Your task to perform on an android device: Do I have any events today? Image 0: 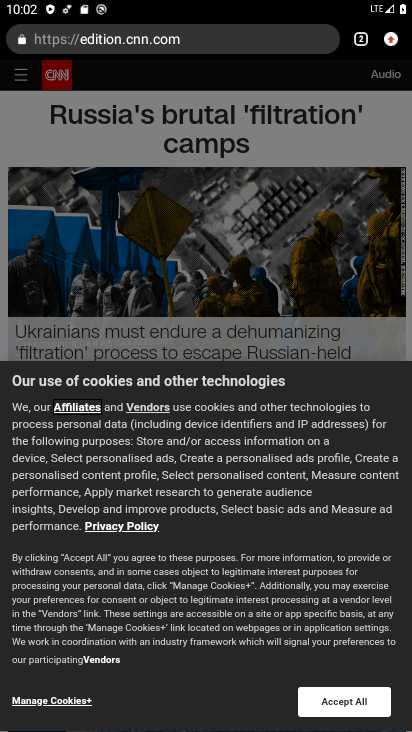
Step 0: click (210, 689)
Your task to perform on an android device: Do I have any events today? Image 1: 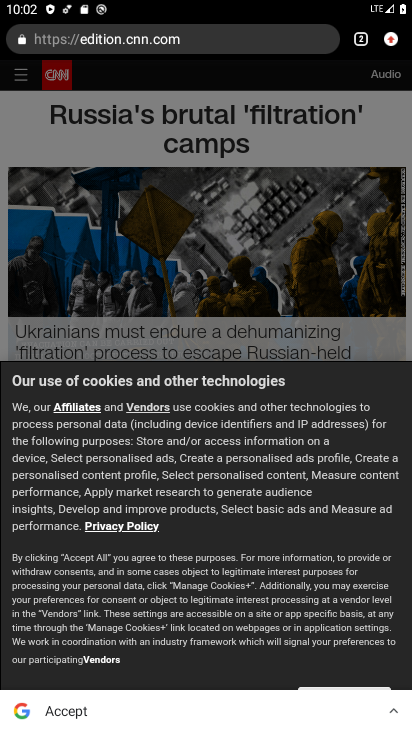
Step 1: press home button
Your task to perform on an android device: Do I have any events today? Image 2: 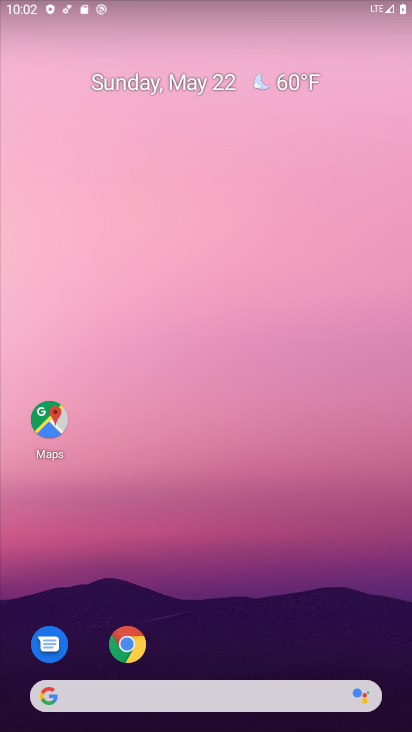
Step 2: drag from (170, 676) to (268, 169)
Your task to perform on an android device: Do I have any events today? Image 3: 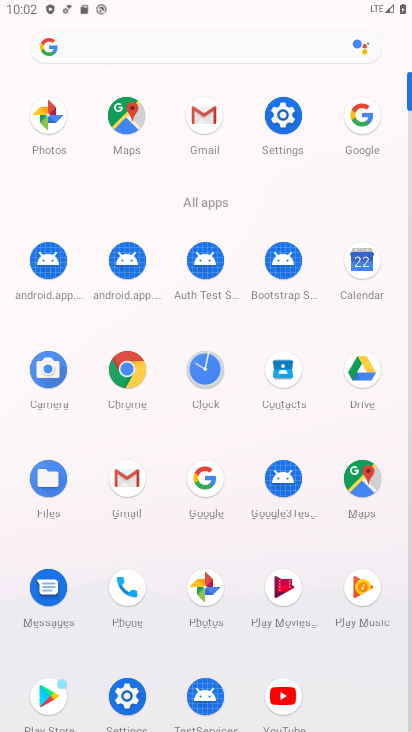
Step 3: click (360, 265)
Your task to perform on an android device: Do I have any events today? Image 4: 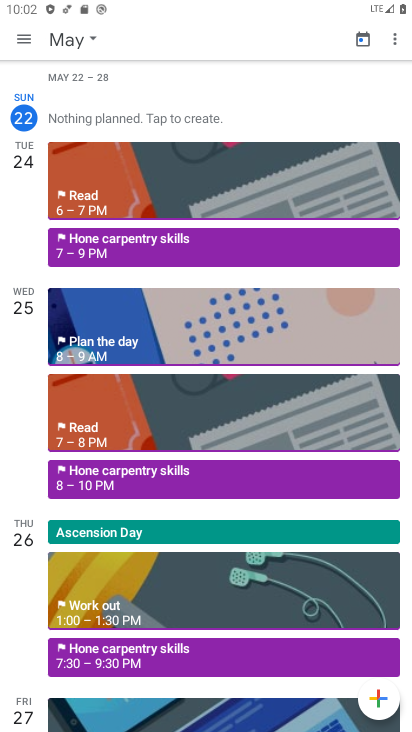
Step 4: click (80, 37)
Your task to perform on an android device: Do I have any events today? Image 5: 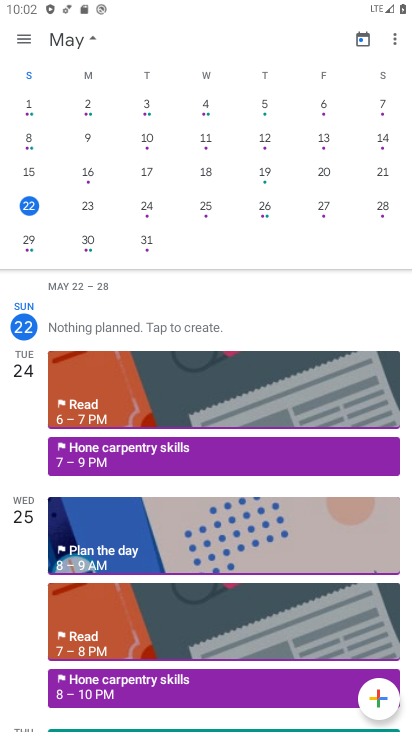
Step 5: click (28, 208)
Your task to perform on an android device: Do I have any events today? Image 6: 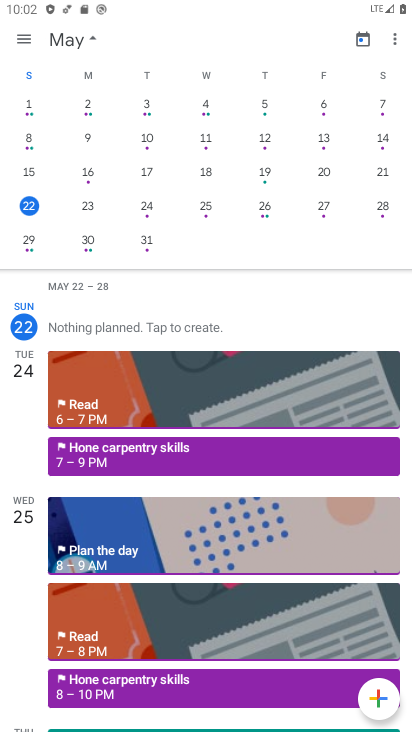
Step 6: click (59, 331)
Your task to perform on an android device: Do I have any events today? Image 7: 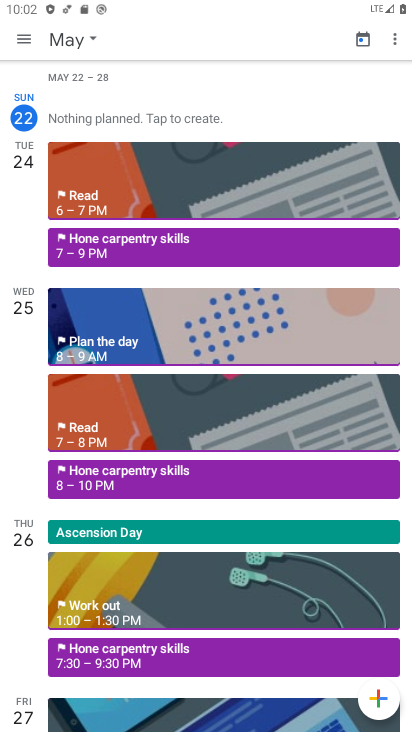
Step 7: task complete